Your task to perform on an android device: see tabs open on other devices in the chrome app Image 0: 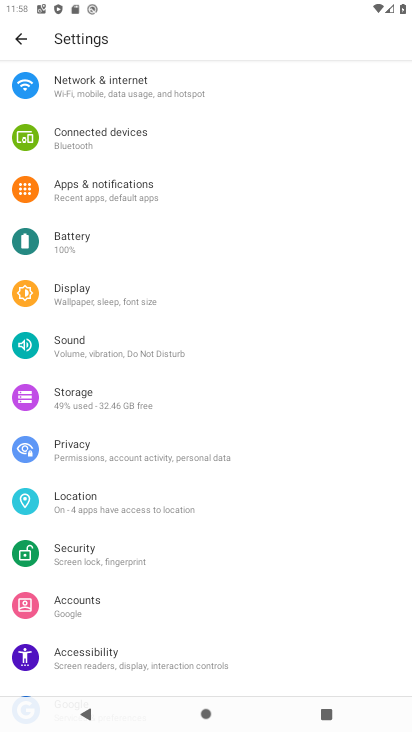
Step 0: press home button
Your task to perform on an android device: see tabs open on other devices in the chrome app Image 1: 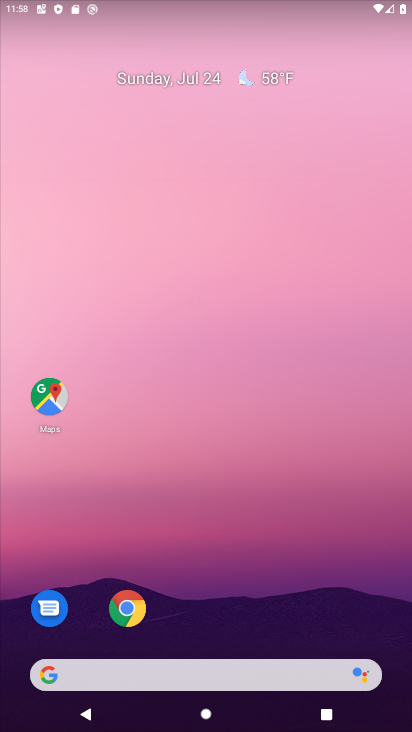
Step 1: click (130, 609)
Your task to perform on an android device: see tabs open on other devices in the chrome app Image 2: 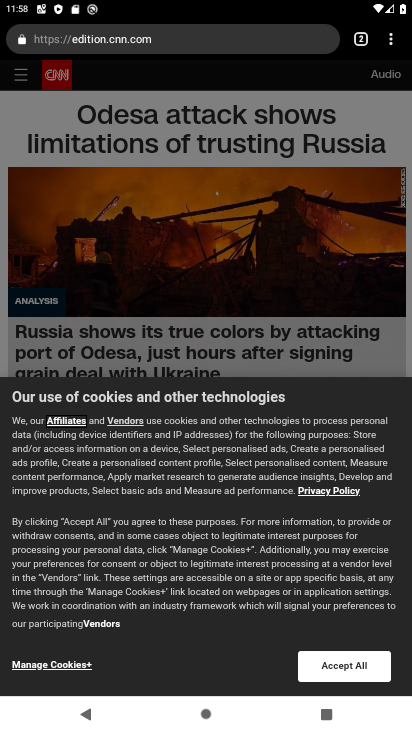
Step 2: task complete